Your task to perform on an android device: toggle javascript in the chrome app Image 0: 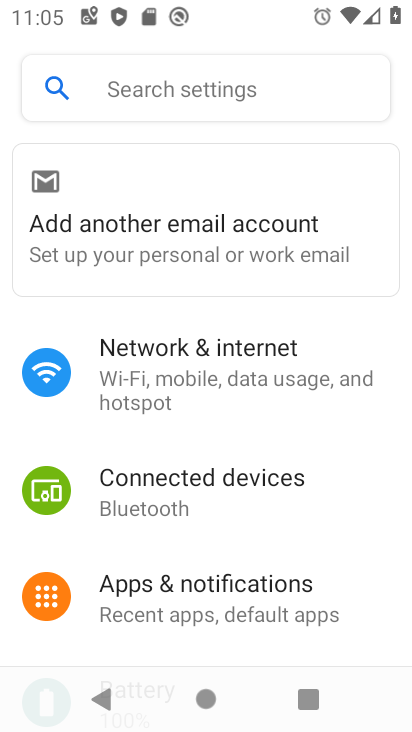
Step 0: press home button
Your task to perform on an android device: toggle javascript in the chrome app Image 1: 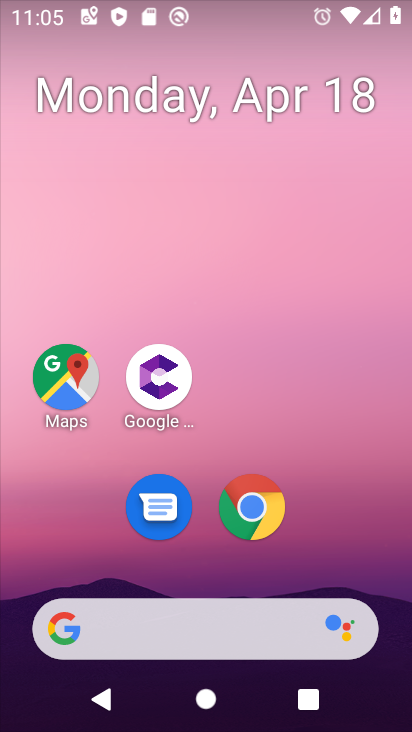
Step 1: drag from (269, 673) to (219, 288)
Your task to perform on an android device: toggle javascript in the chrome app Image 2: 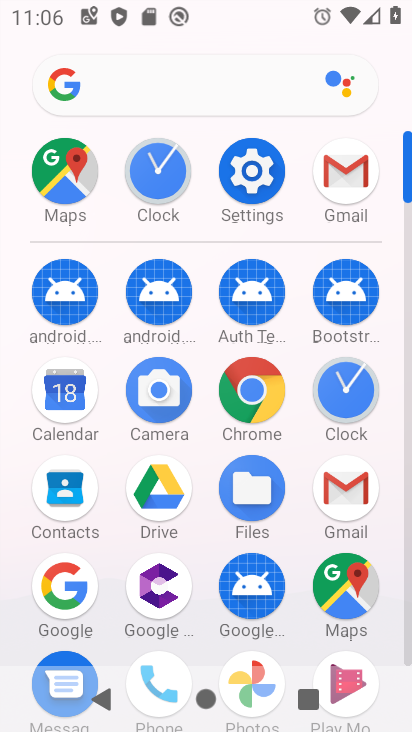
Step 2: click (244, 388)
Your task to perform on an android device: toggle javascript in the chrome app Image 3: 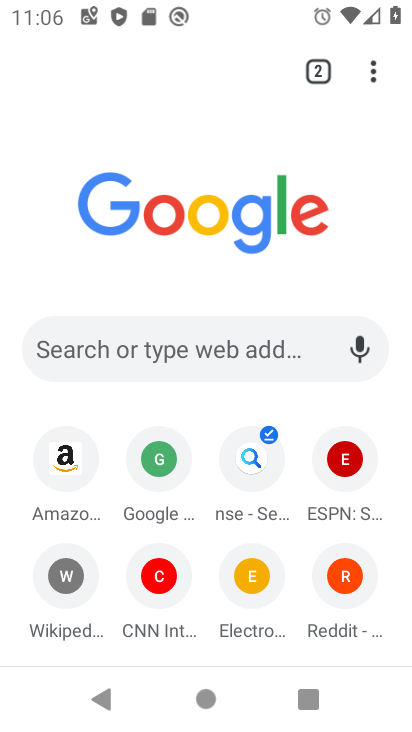
Step 3: click (375, 75)
Your task to perform on an android device: toggle javascript in the chrome app Image 4: 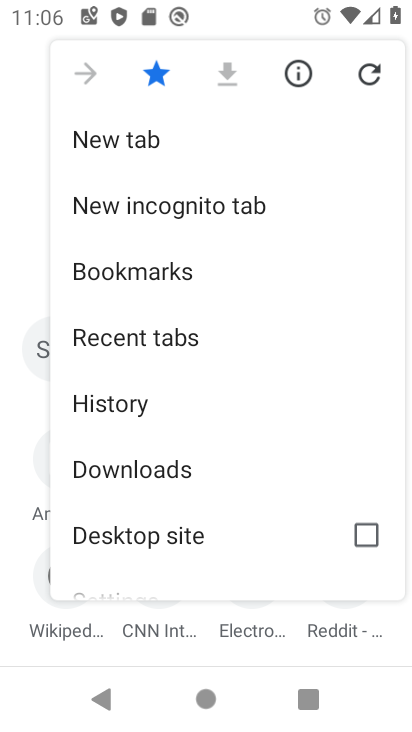
Step 4: click (126, 581)
Your task to perform on an android device: toggle javascript in the chrome app Image 5: 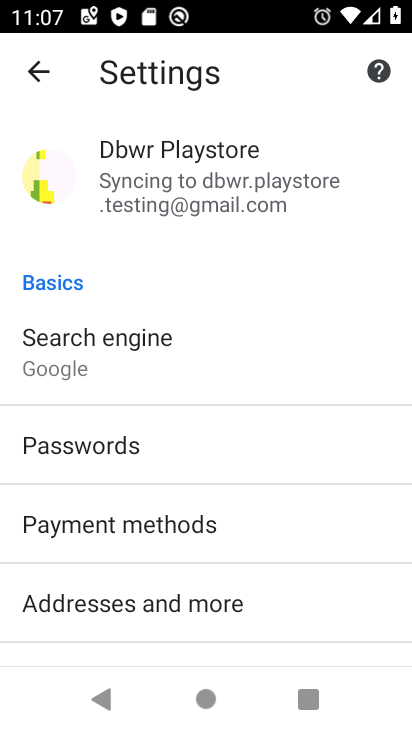
Step 5: drag from (202, 573) to (144, 248)
Your task to perform on an android device: toggle javascript in the chrome app Image 6: 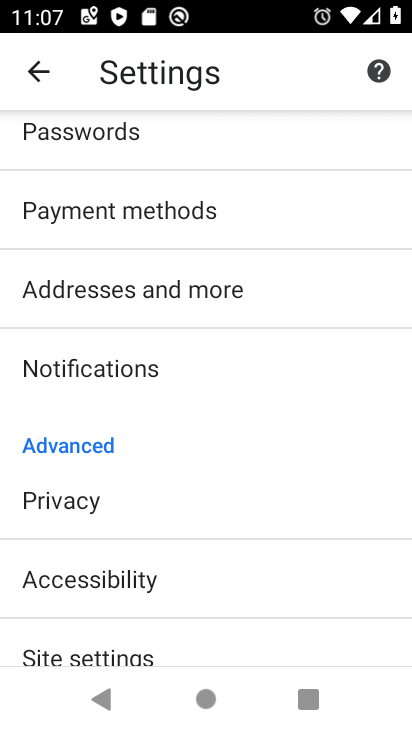
Step 6: drag from (107, 530) to (82, 452)
Your task to perform on an android device: toggle javascript in the chrome app Image 7: 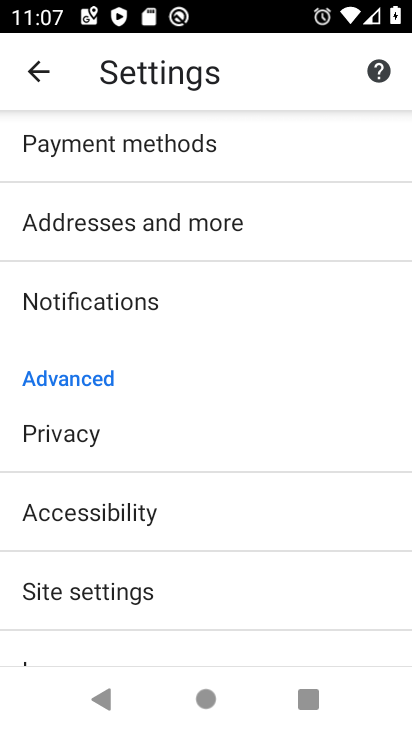
Step 7: click (69, 597)
Your task to perform on an android device: toggle javascript in the chrome app Image 8: 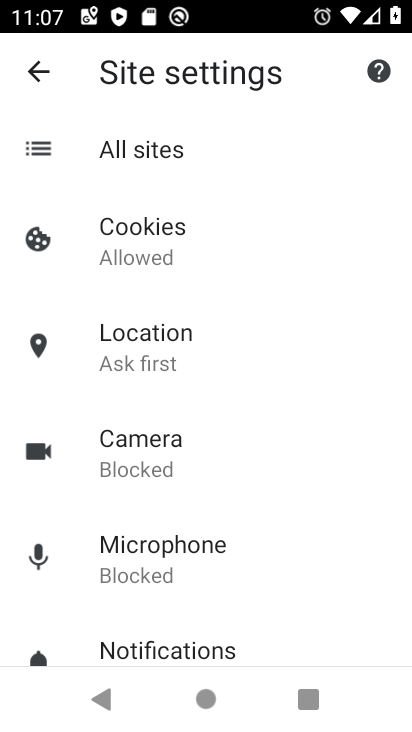
Step 8: drag from (237, 602) to (197, 422)
Your task to perform on an android device: toggle javascript in the chrome app Image 9: 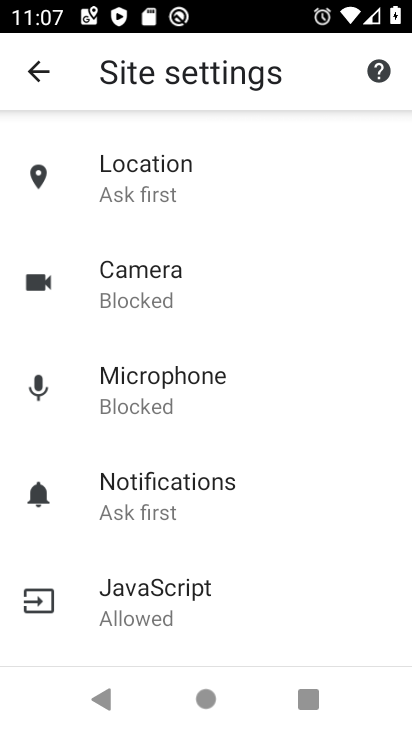
Step 9: click (150, 582)
Your task to perform on an android device: toggle javascript in the chrome app Image 10: 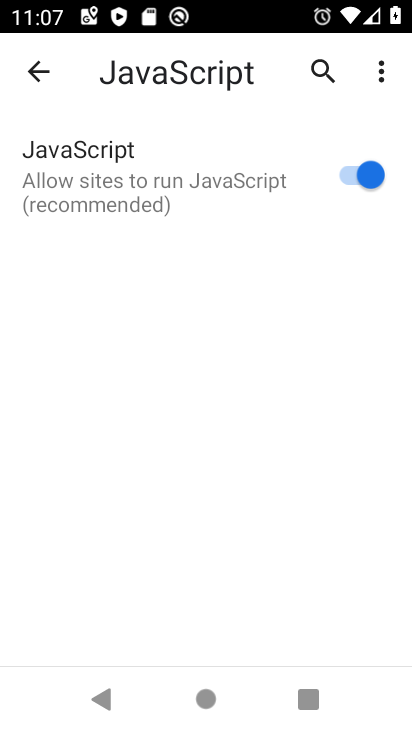
Step 10: task complete